Your task to perform on an android device: turn off smart reply in the gmail app Image 0: 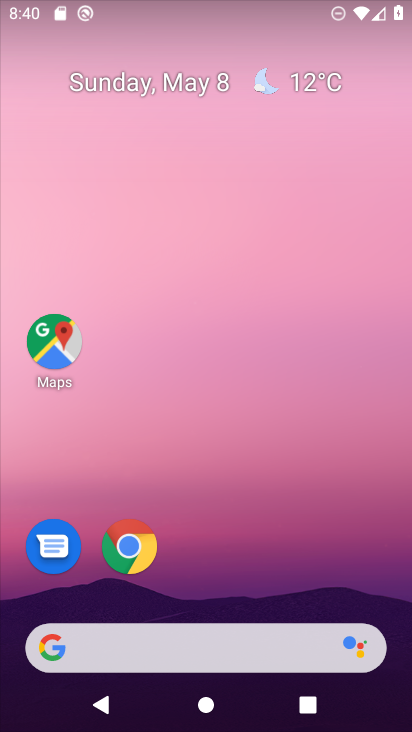
Step 0: drag from (251, 526) to (233, 55)
Your task to perform on an android device: turn off smart reply in the gmail app Image 1: 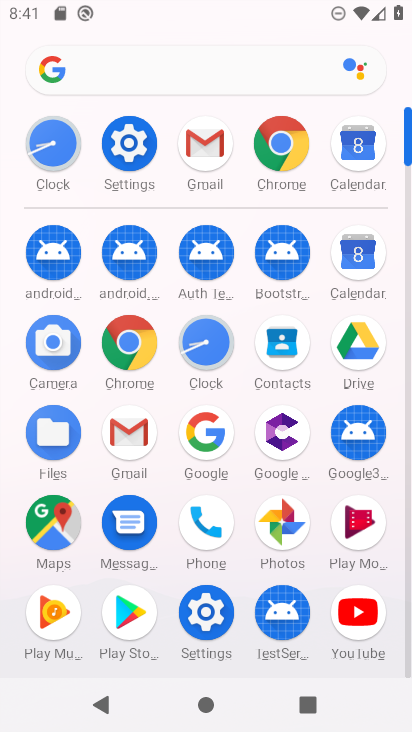
Step 1: click (207, 127)
Your task to perform on an android device: turn off smart reply in the gmail app Image 2: 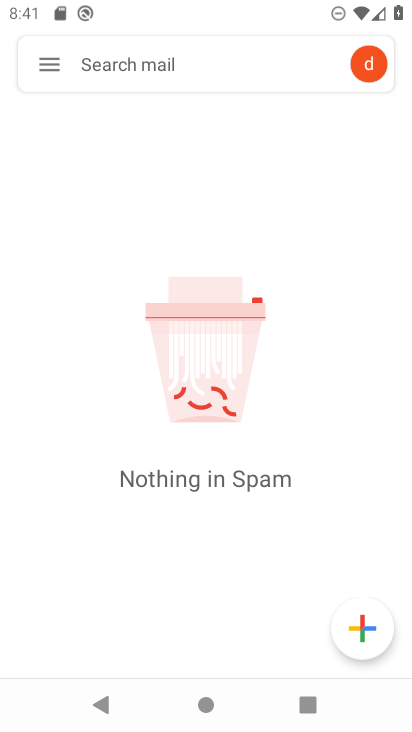
Step 2: click (48, 66)
Your task to perform on an android device: turn off smart reply in the gmail app Image 3: 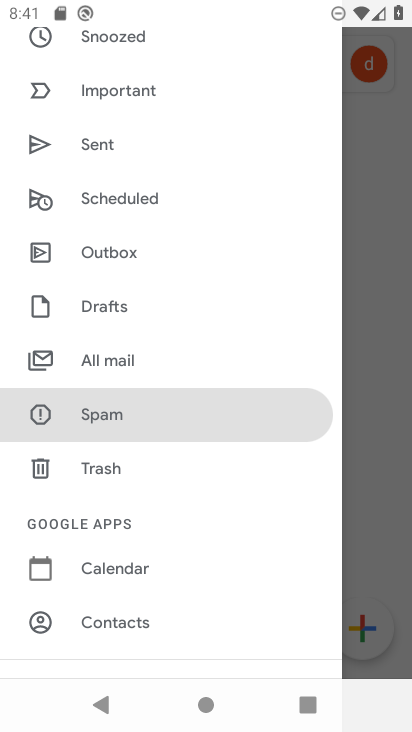
Step 3: drag from (194, 473) to (215, 236)
Your task to perform on an android device: turn off smart reply in the gmail app Image 4: 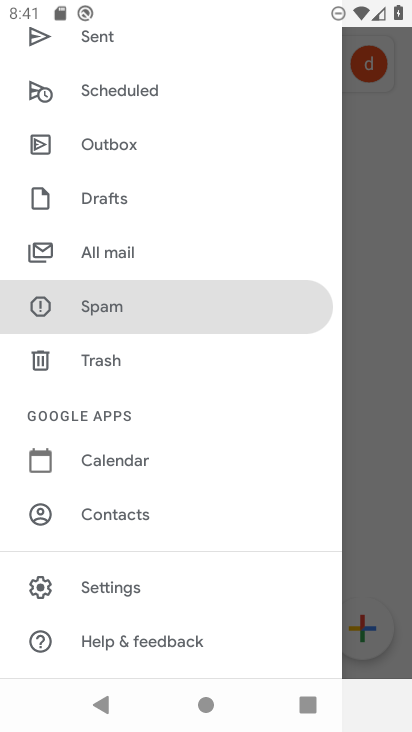
Step 4: click (118, 584)
Your task to perform on an android device: turn off smart reply in the gmail app Image 5: 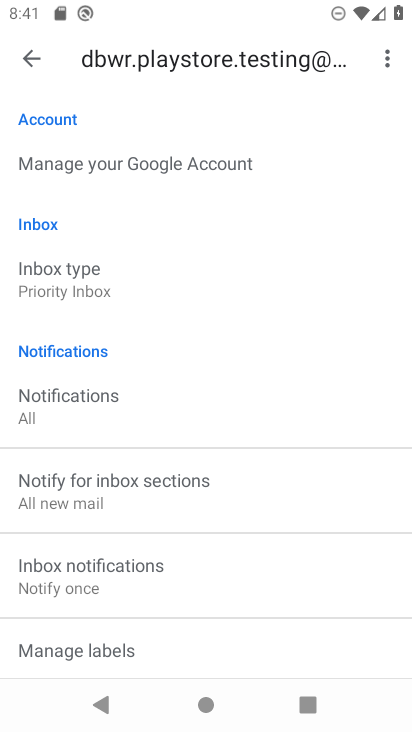
Step 5: drag from (264, 587) to (261, 62)
Your task to perform on an android device: turn off smart reply in the gmail app Image 6: 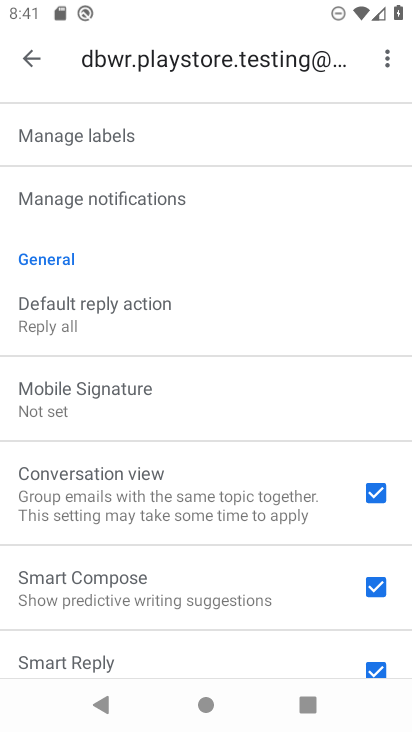
Step 6: click (378, 667)
Your task to perform on an android device: turn off smart reply in the gmail app Image 7: 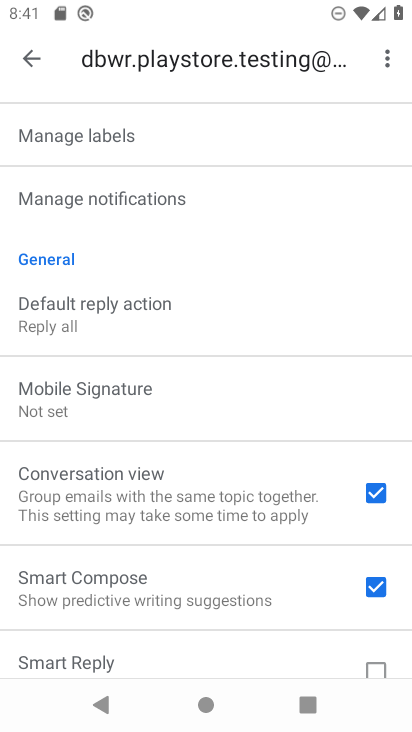
Step 7: task complete